Your task to perform on an android device: open chrome privacy settings Image 0: 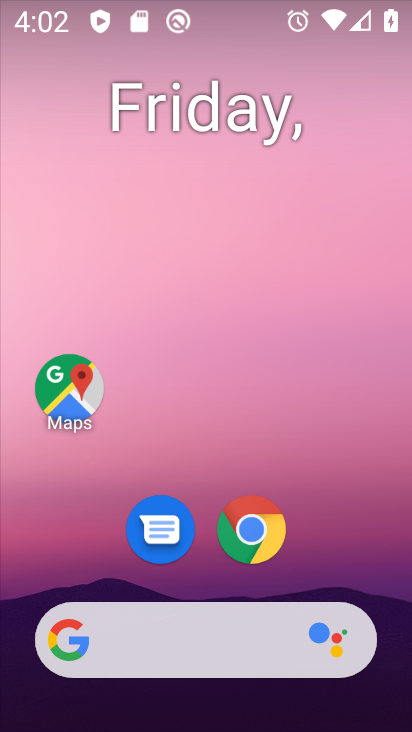
Step 0: click (250, 529)
Your task to perform on an android device: open chrome privacy settings Image 1: 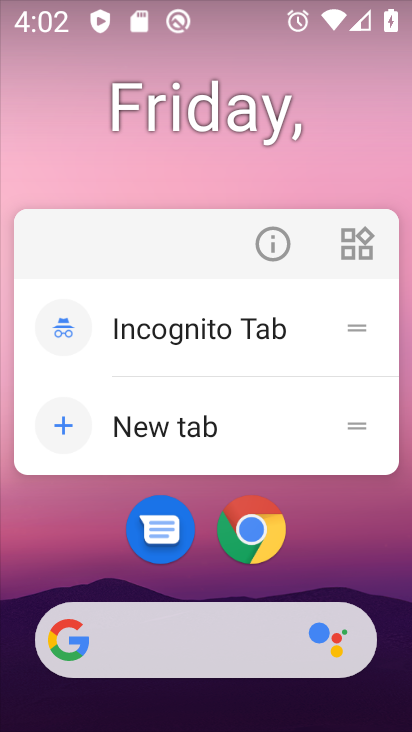
Step 1: click (247, 542)
Your task to perform on an android device: open chrome privacy settings Image 2: 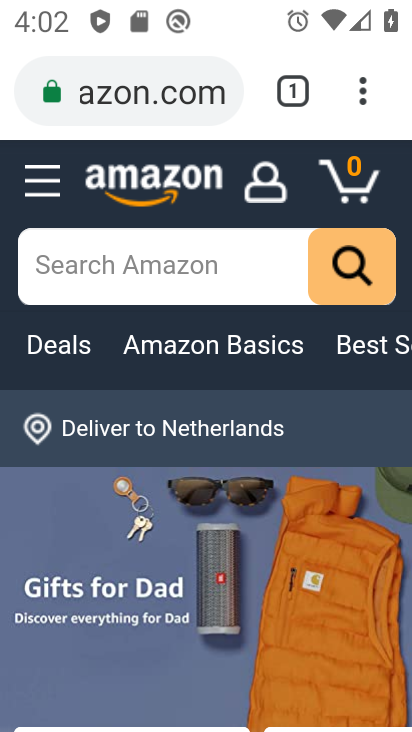
Step 2: drag from (384, 86) to (263, 581)
Your task to perform on an android device: open chrome privacy settings Image 3: 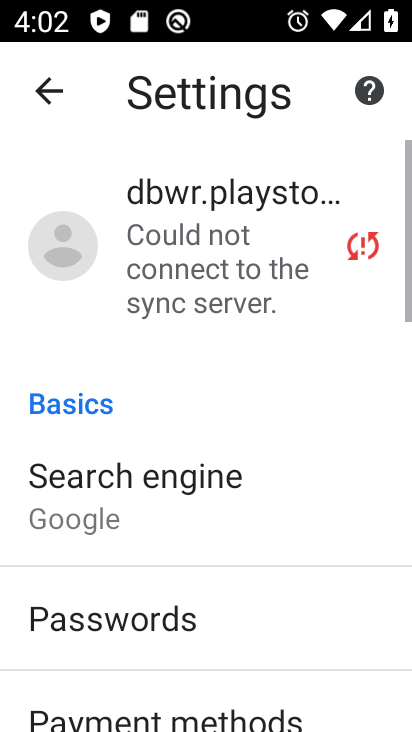
Step 3: drag from (227, 644) to (377, 209)
Your task to perform on an android device: open chrome privacy settings Image 4: 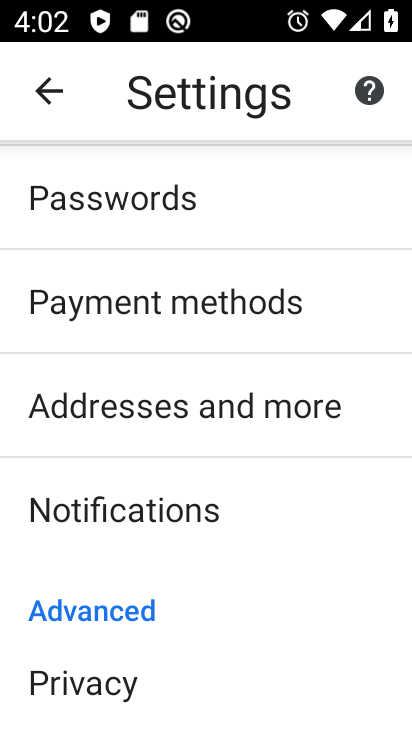
Step 4: click (142, 670)
Your task to perform on an android device: open chrome privacy settings Image 5: 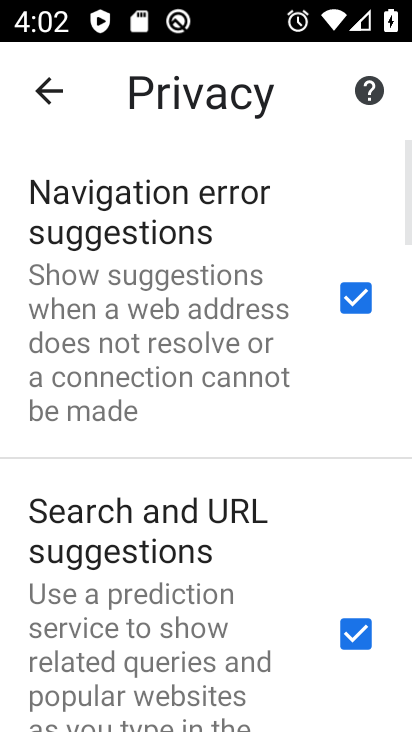
Step 5: task complete